Your task to perform on an android device: open sync settings in chrome Image 0: 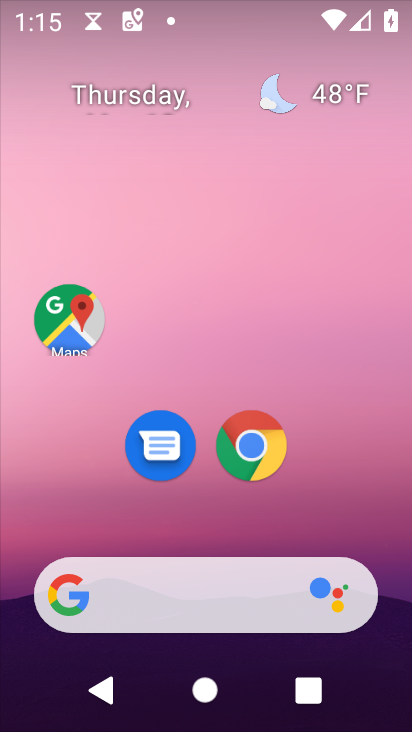
Step 0: click (253, 450)
Your task to perform on an android device: open sync settings in chrome Image 1: 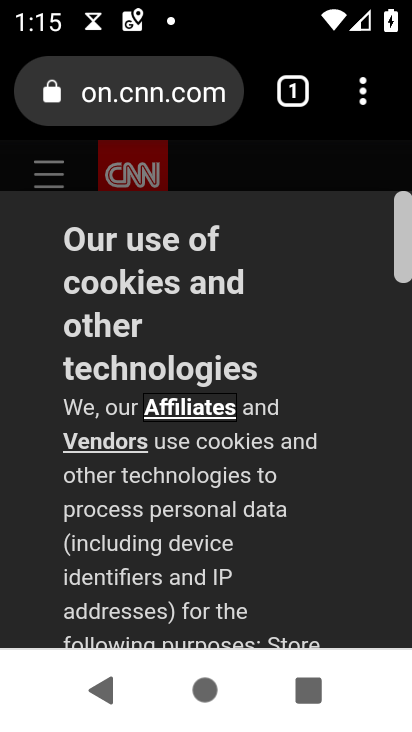
Step 1: click (355, 83)
Your task to perform on an android device: open sync settings in chrome Image 2: 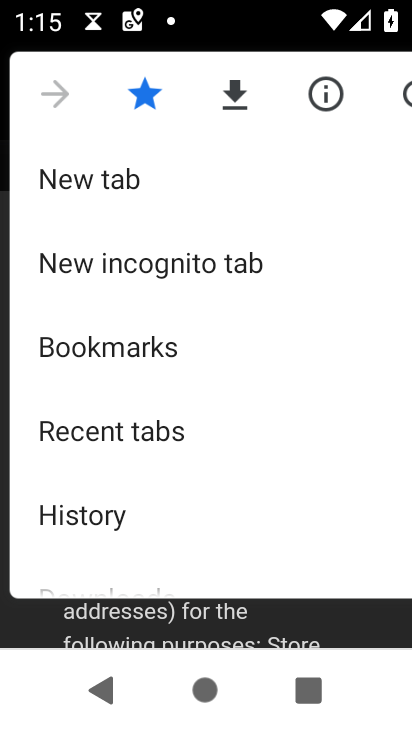
Step 2: drag from (317, 464) to (302, 199)
Your task to perform on an android device: open sync settings in chrome Image 3: 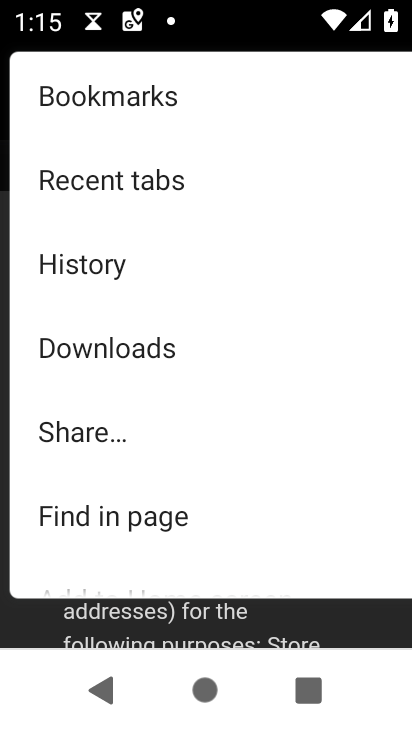
Step 3: drag from (154, 539) to (205, 221)
Your task to perform on an android device: open sync settings in chrome Image 4: 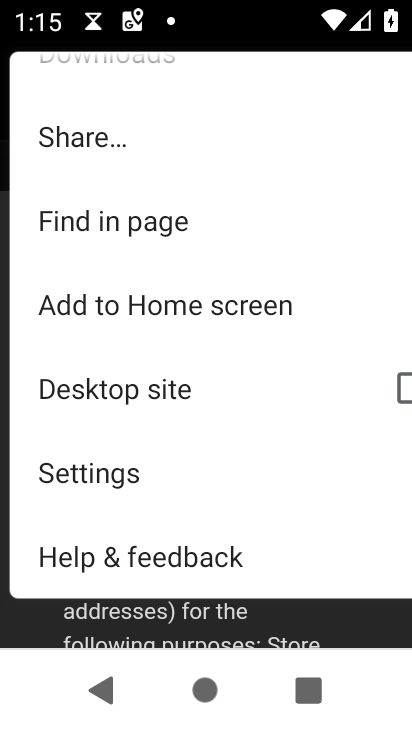
Step 4: click (156, 475)
Your task to perform on an android device: open sync settings in chrome Image 5: 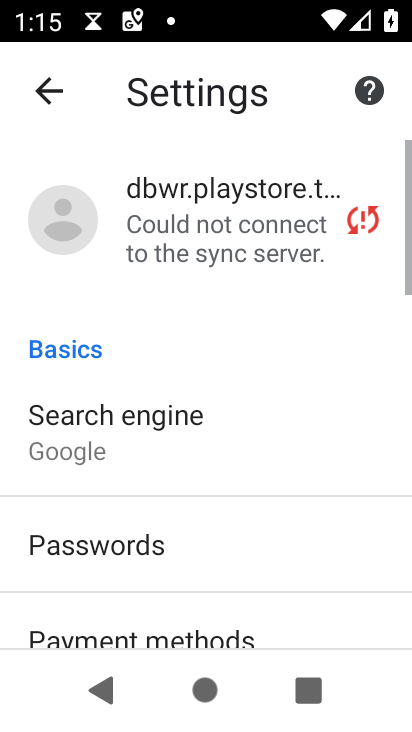
Step 5: drag from (250, 457) to (254, 186)
Your task to perform on an android device: open sync settings in chrome Image 6: 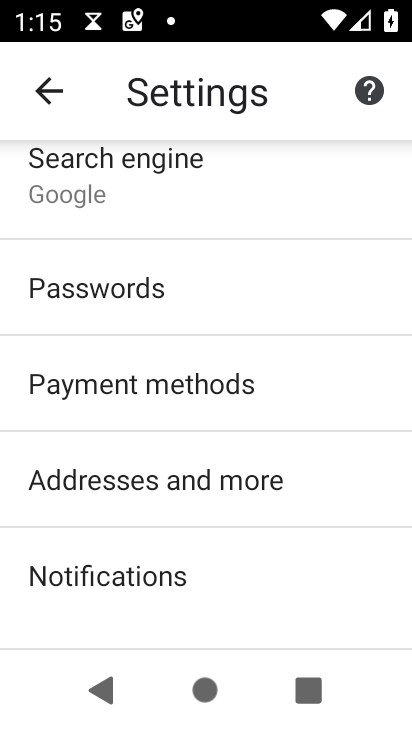
Step 6: drag from (257, 535) to (278, 232)
Your task to perform on an android device: open sync settings in chrome Image 7: 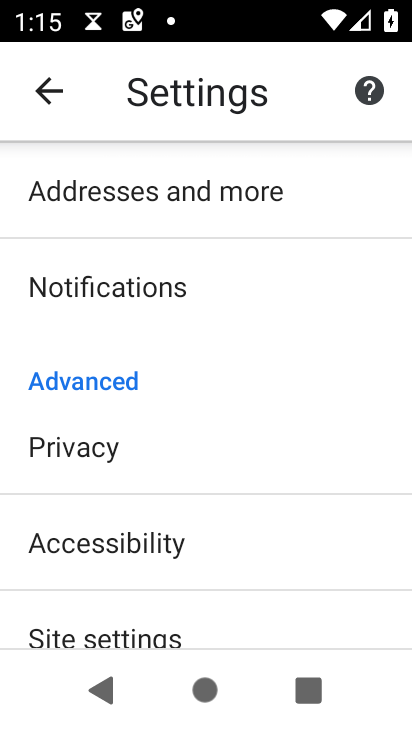
Step 7: drag from (213, 596) to (253, 590)
Your task to perform on an android device: open sync settings in chrome Image 8: 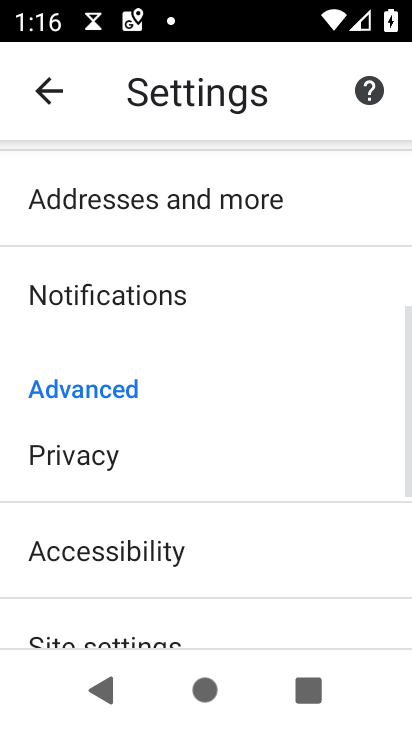
Step 8: drag from (304, 250) to (294, 615)
Your task to perform on an android device: open sync settings in chrome Image 9: 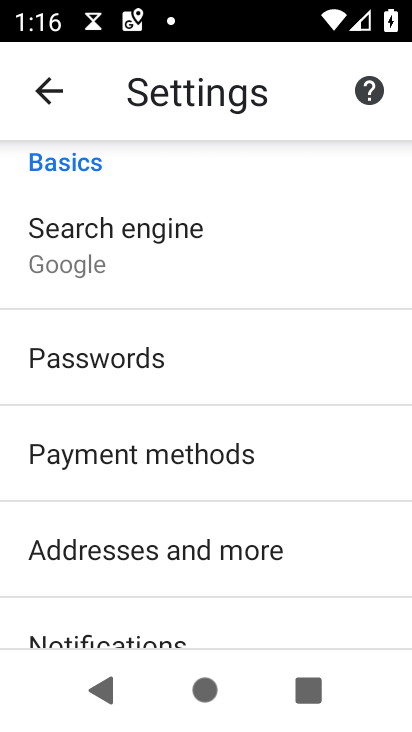
Step 9: drag from (313, 239) to (268, 578)
Your task to perform on an android device: open sync settings in chrome Image 10: 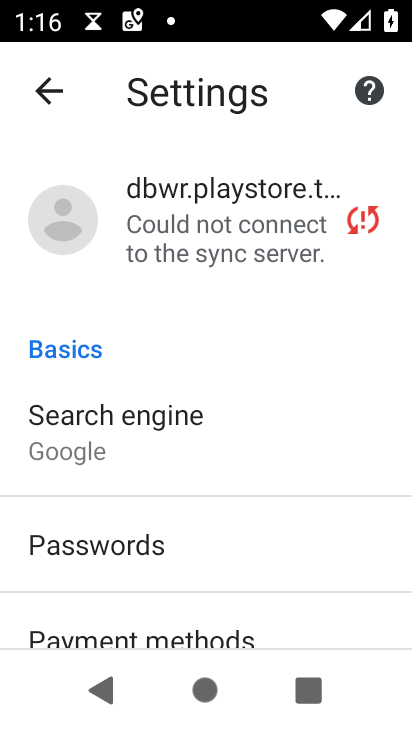
Step 10: click (225, 250)
Your task to perform on an android device: open sync settings in chrome Image 11: 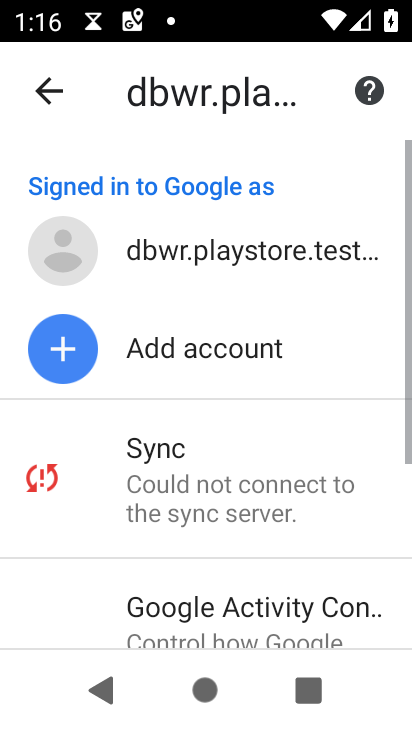
Step 11: click (237, 493)
Your task to perform on an android device: open sync settings in chrome Image 12: 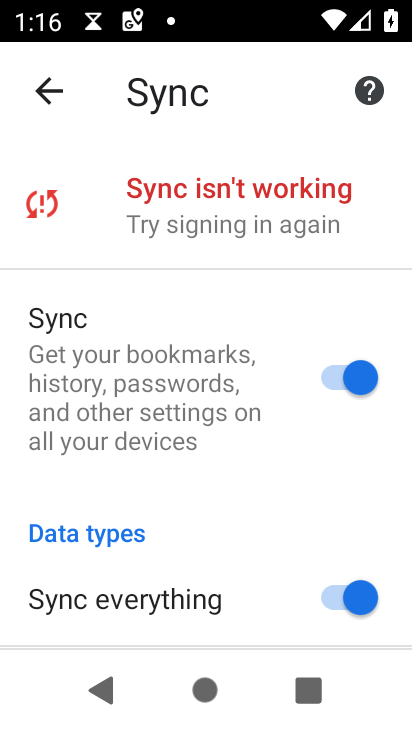
Step 12: task complete